Your task to perform on an android device: Open Chrome and go to settings Image 0: 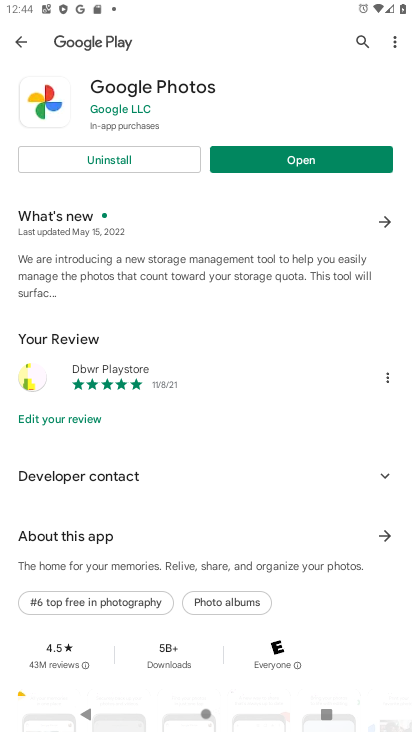
Step 0: press home button
Your task to perform on an android device: Open Chrome and go to settings Image 1: 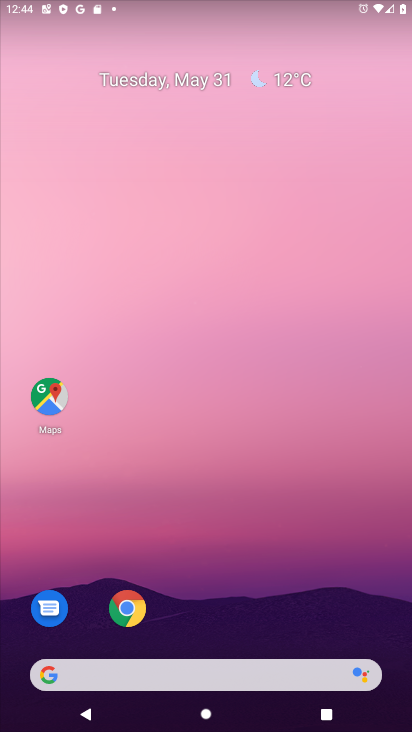
Step 1: click (125, 607)
Your task to perform on an android device: Open Chrome and go to settings Image 2: 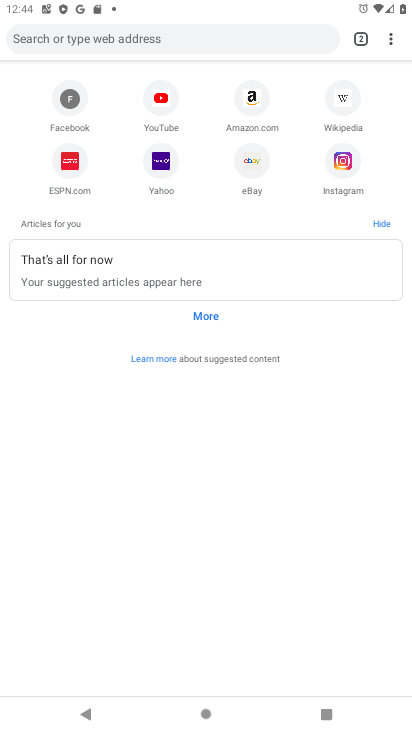
Step 2: click (384, 39)
Your task to perform on an android device: Open Chrome and go to settings Image 3: 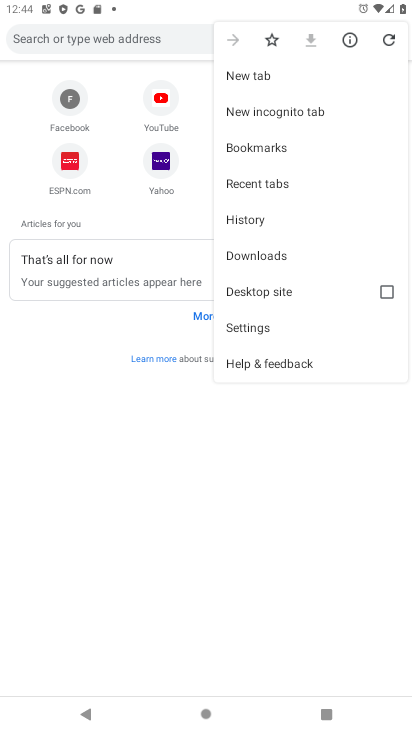
Step 3: click (264, 333)
Your task to perform on an android device: Open Chrome and go to settings Image 4: 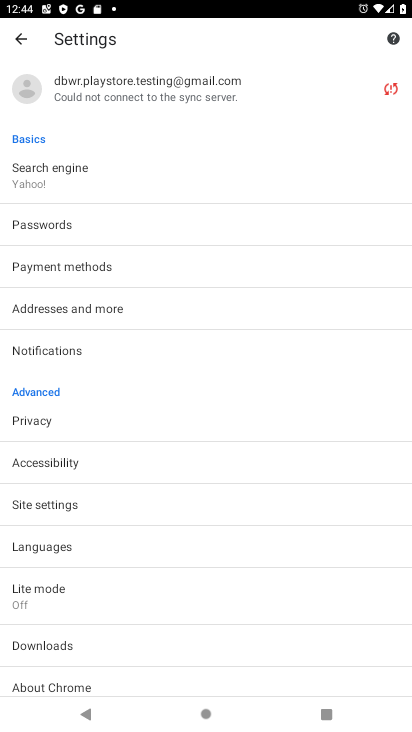
Step 4: task complete